Your task to perform on an android device: Go to display settings Image 0: 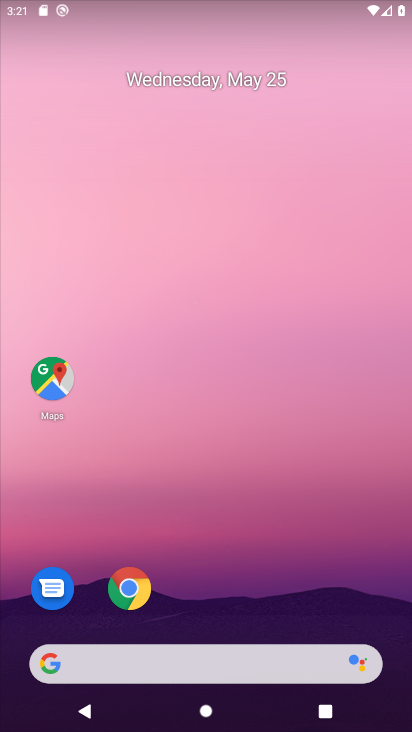
Step 0: drag from (230, 626) to (123, 49)
Your task to perform on an android device: Go to display settings Image 1: 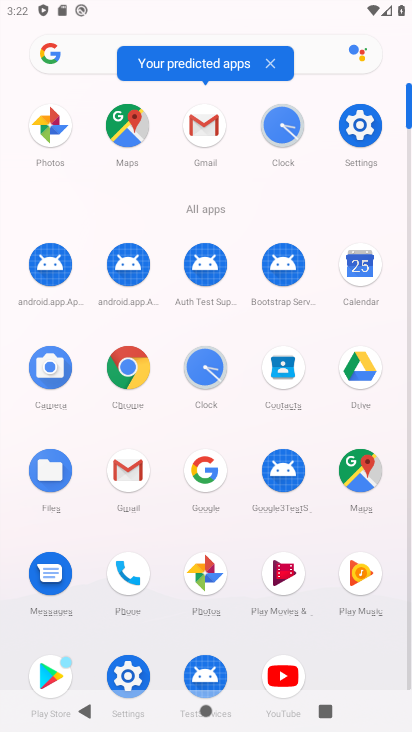
Step 1: click (362, 123)
Your task to perform on an android device: Go to display settings Image 2: 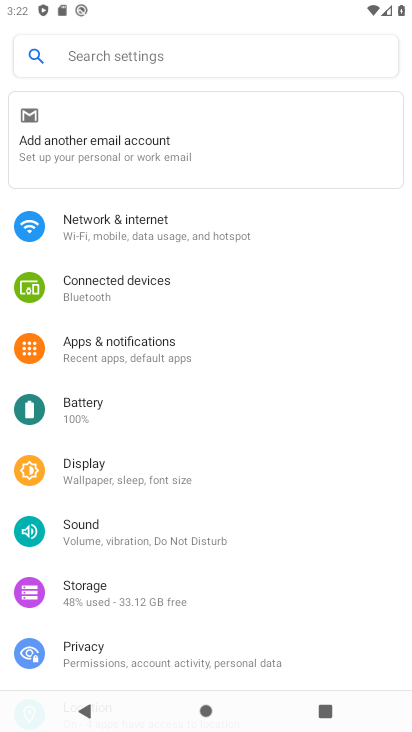
Step 2: click (177, 477)
Your task to perform on an android device: Go to display settings Image 3: 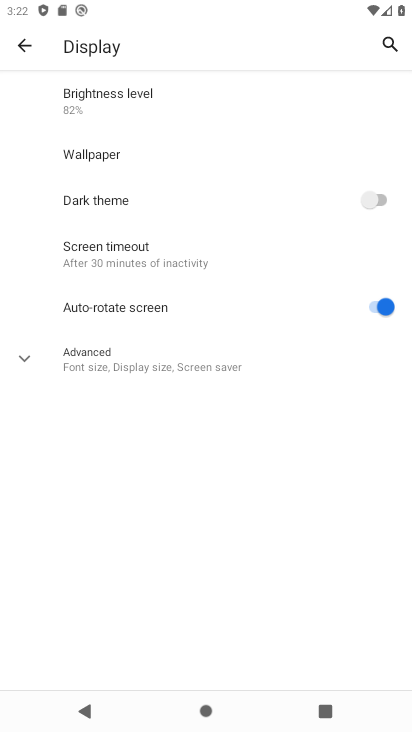
Step 3: task complete